Your task to perform on an android device: change your default location settings in chrome Image 0: 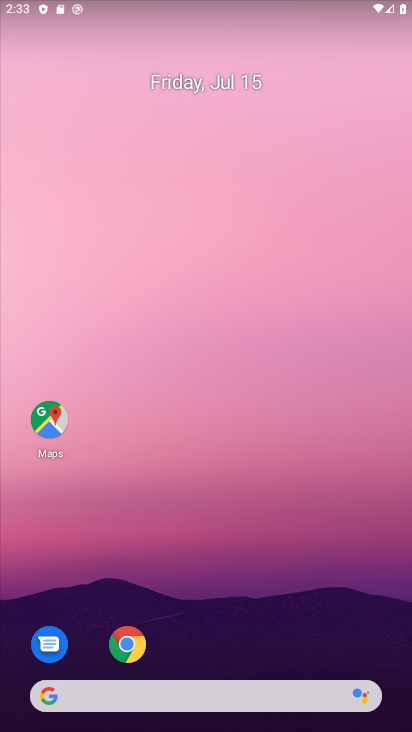
Step 0: drag from (115, 691) to (40, 159)
Your task to perform on an android device: change your default location settings in chrome Image 1: 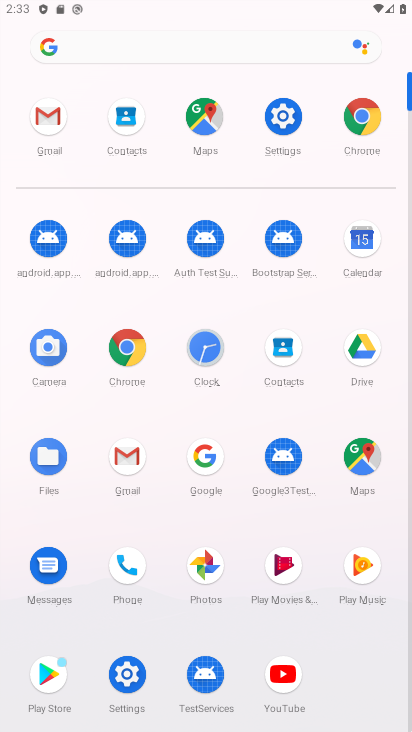
Step 1: click (125, 348)
Your task to perform on an android device: change your default location settings in chrome Image 2: 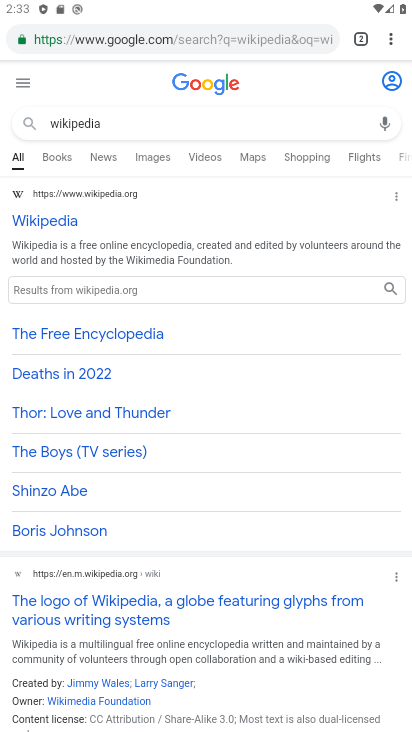
Step 2: click (386, 28)
Your task to perform on an android device: change your default location settings in chrome Image 3: 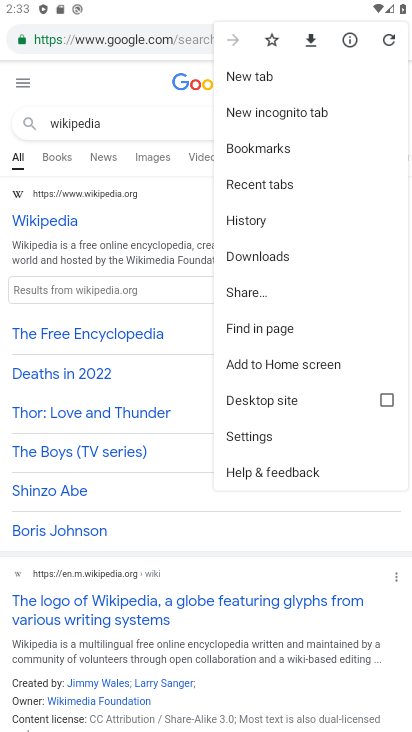
Step 3: click (257, 437)
Your task to perform on an android device: change your default location settings in chrome Image 4: 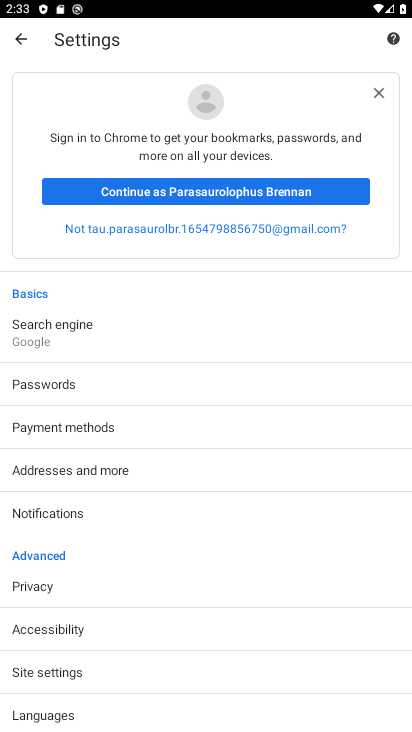
Step 4: drag from (117, 664) to (126, 439)
Your task to perform on an android device: change your default location settings in chrome Image 5: 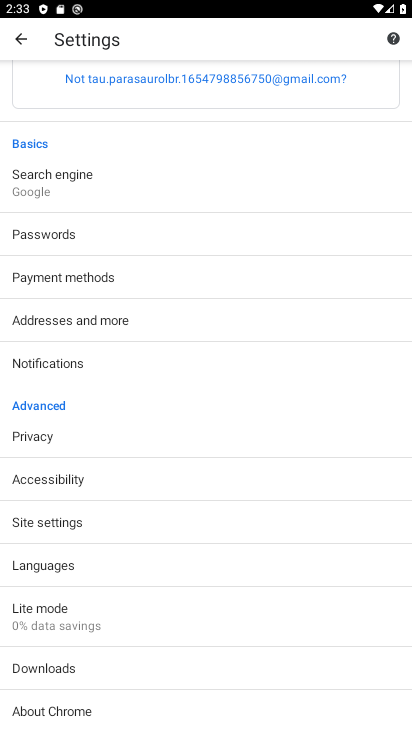
Step 5: click (79, 521)
Your task to perform on an android device: change your default location settings in chrome Image 6: 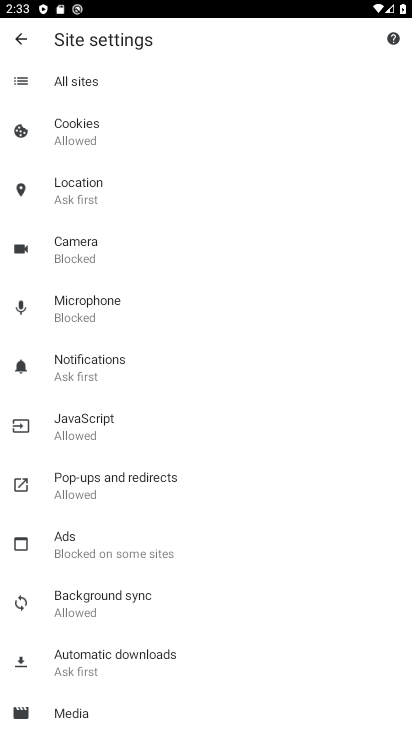
Step 6: click (74, 193)
Your task to perform on an android device: change your default location settings in chrome Image 7: 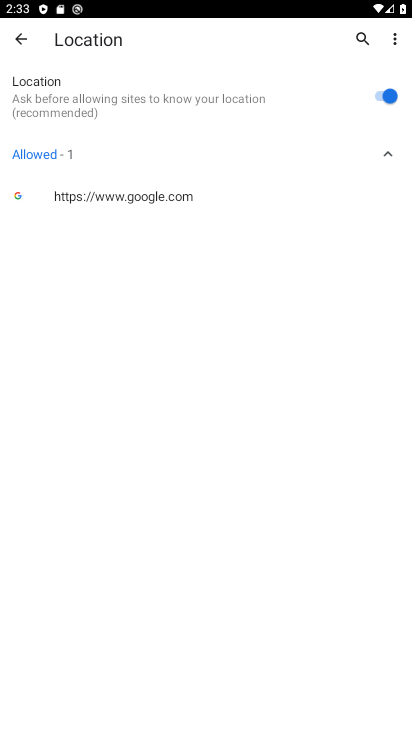
Step 7: task complete